Your task to perform on an android device: all mails in gmail Image 0: 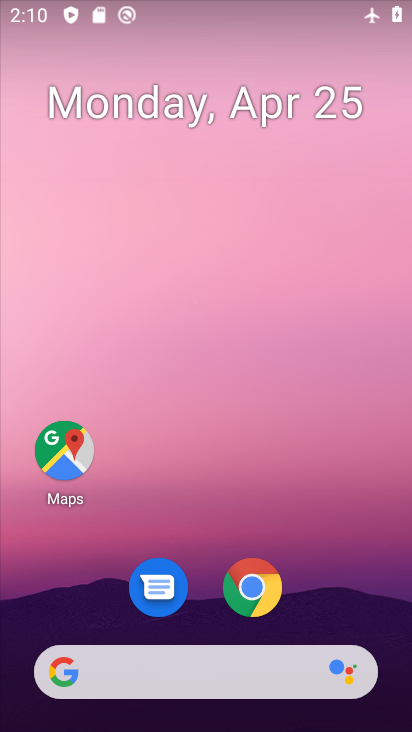
Step 0: drag from (329, 602) to (340, 158)
Your task to perform on an android device: all mails in gmail Image 1: 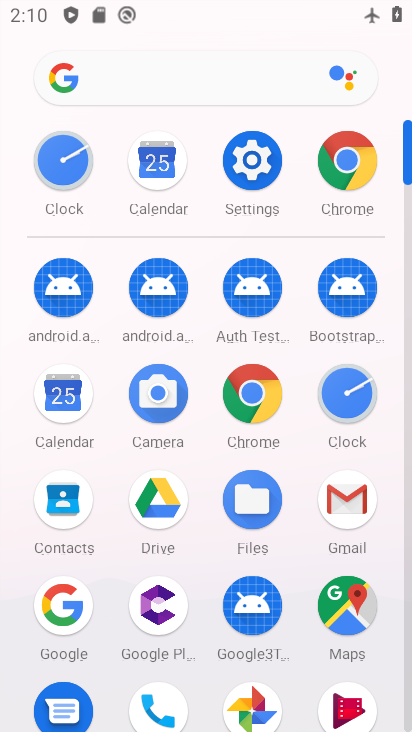
Step 1: click (355, 506)
Your task to perform on an android device: all mails in gmail Image 2: 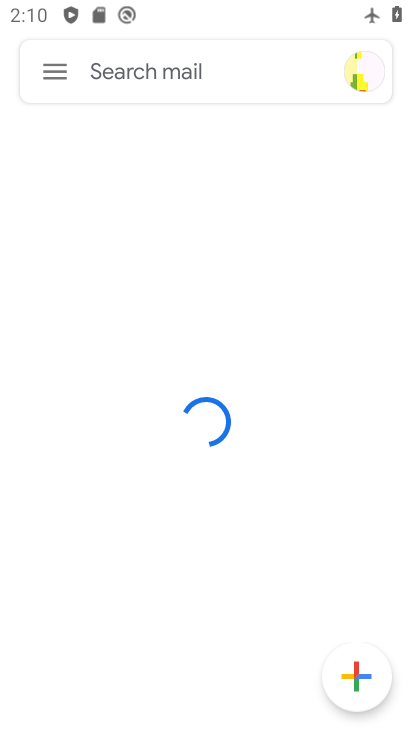
Step 2: click (51, 64)
Your task to perform on an android device: all mails in gmail Image 3: 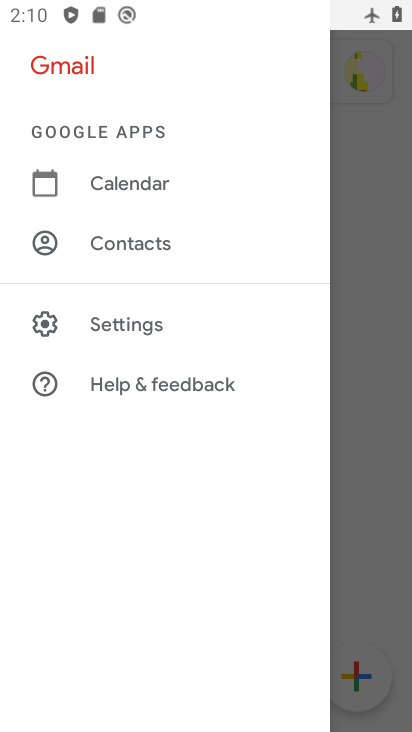
Step 3: click (376, 222)
Your task to perform on an android device: all mails in gmail Image 4: 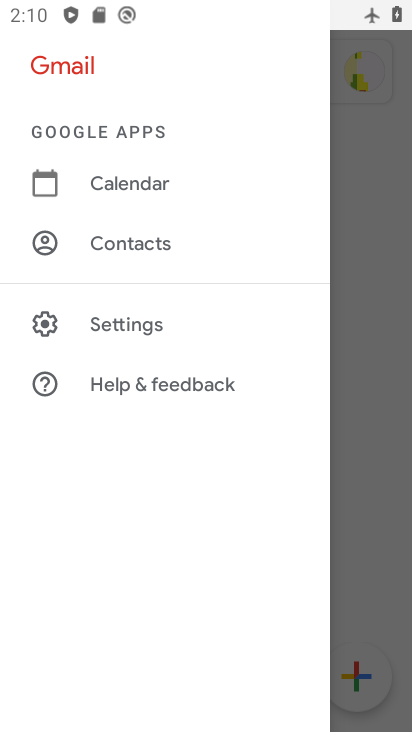
Step 4: click (376, 222)
Your task to perform on an android device: all mails in gmail Image 5: 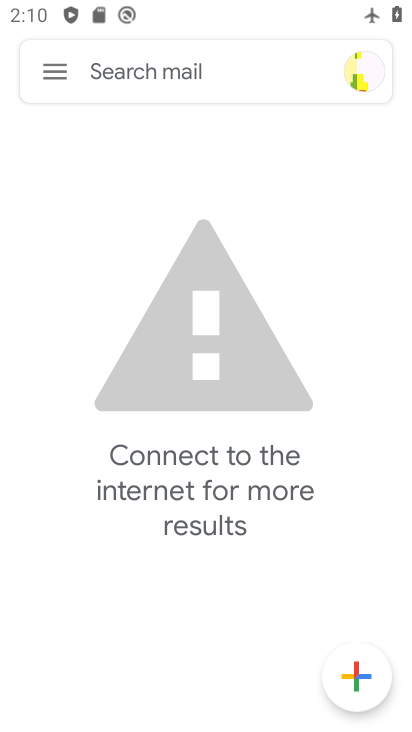
Step 5: task complete